Your task to perform on an android device: Open Google Image 0: 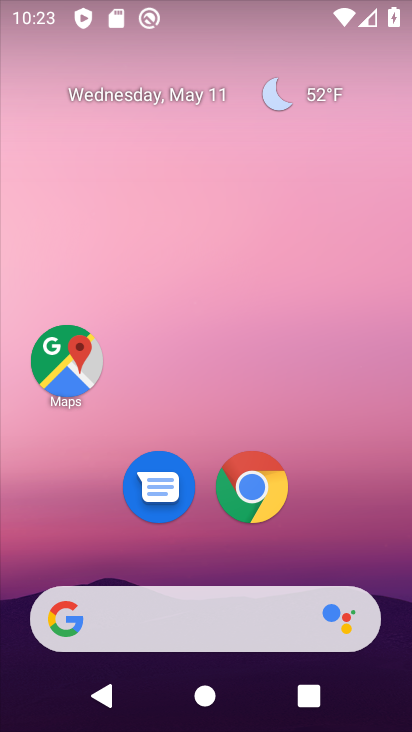
Step 0: drag from (331, 499) to (264, 16)
Your task to perform on an android device: Open Google Image 1: 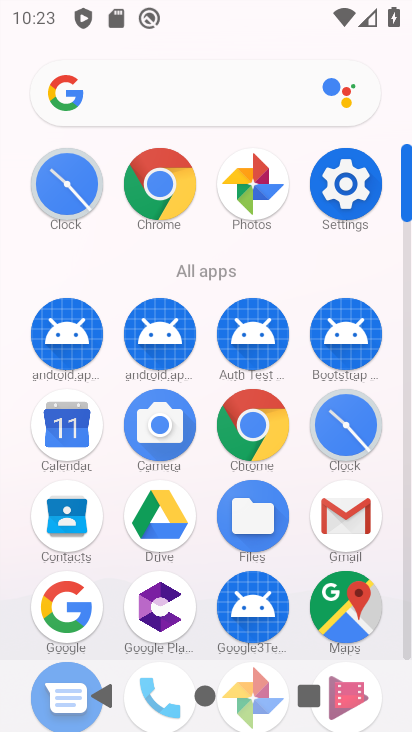
Step 1: click (161, 182)
Your task to perform on an android device: Open Google Image 2: 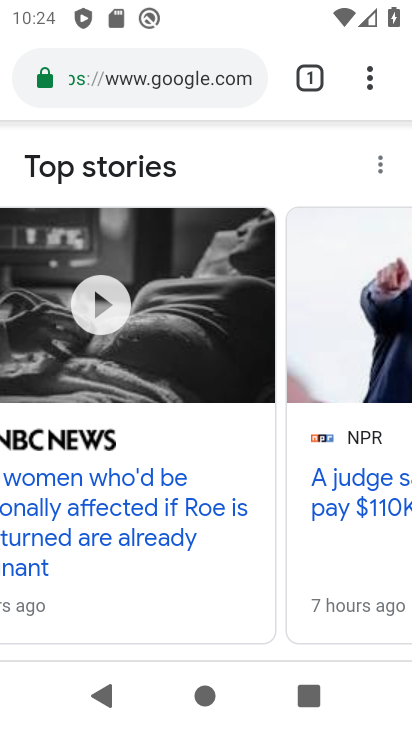
Step 2: task complete